Your task to perform on an android device: turn smart compose on in the gmail app Image 0: 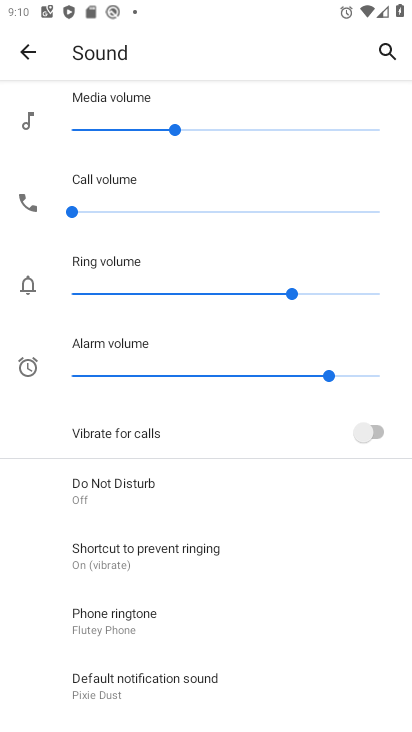
Step 0: press home button
Your task to perform on an android device: turn smart compose on in the gmail app Image 1: 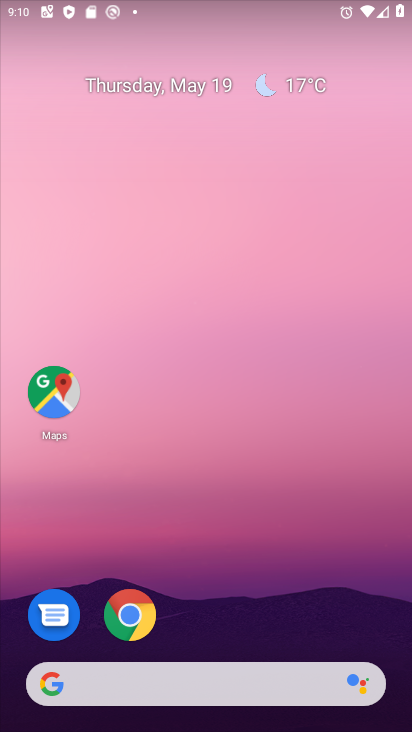
Step 1: drag from (330, 621) to (341, 520)
Your task to perform on an android device: turn smart compose on in the gmail app Image 2: 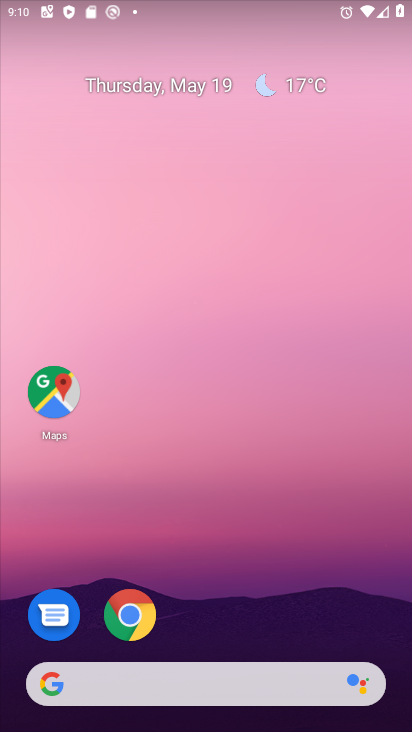
Step 2: drag from (351, 612) to (372, 41)
Your task to perform on an android device: turn smart compose on in the gmail app Image 3: 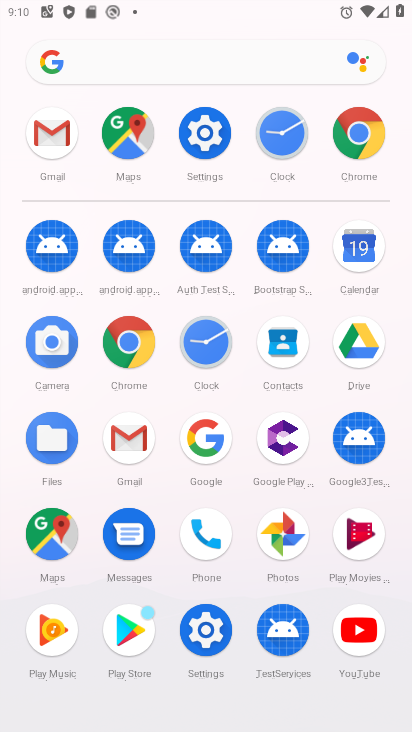
Step 3: click (54, 149)
Your task to perform on an android device: turn smart compose on in the gmail app Image 4: 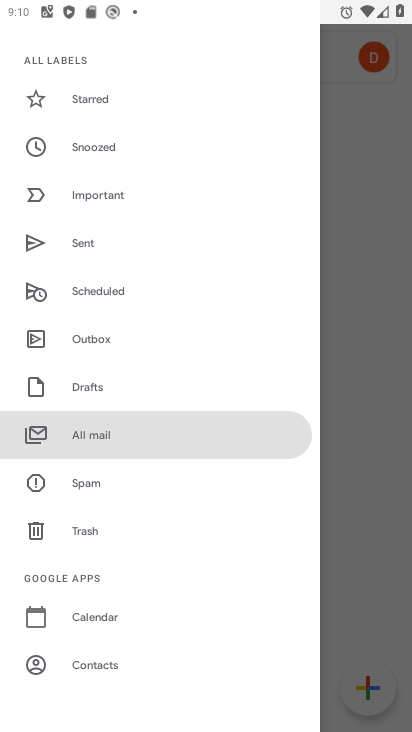
Step 4: drag from (135, 261) to (345, 121)
Your task to perform on an android device: turn smart compose on in the gmail app Image 5: 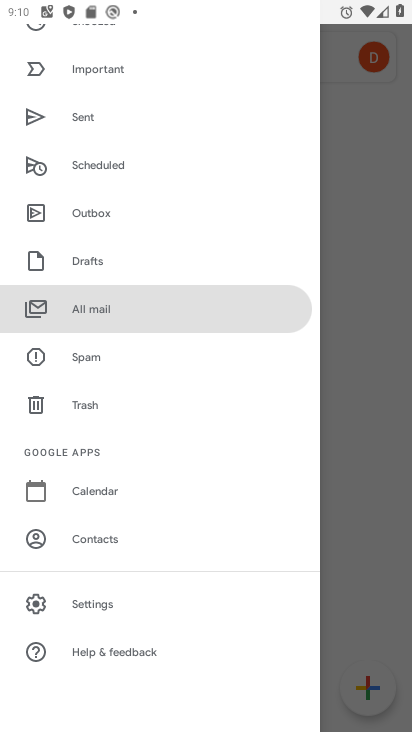
Step 5: click (88, 609)
Your task to perform on an android device: turn smart compose on in the gmail app Image 6: 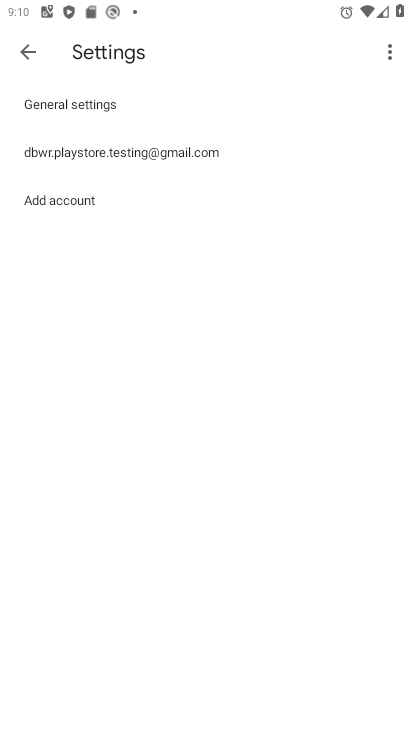
Step 6: click (228, 152)
Your task to perform on an android device: turn smart compose on in the gmail app Image 7: 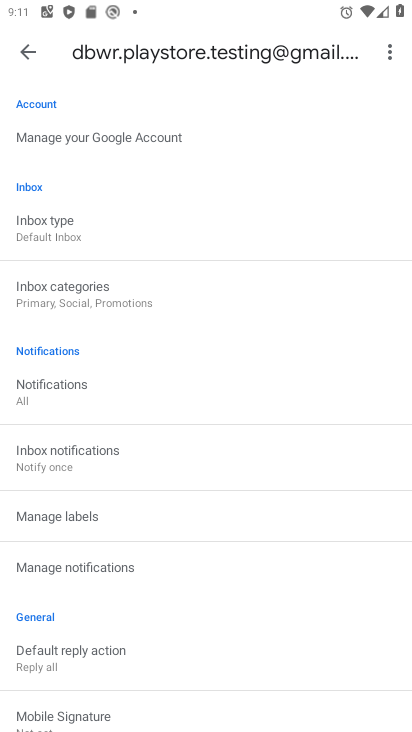
Step 7: task complete